Your task to perform on an android device: Play the last video I watched on Youtube Image 0: 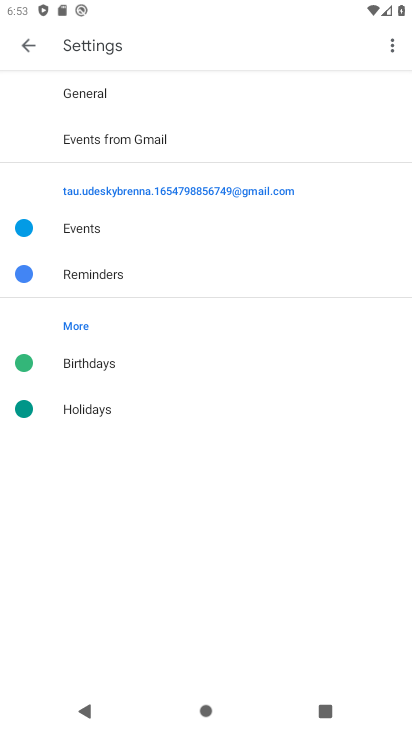
Step 0: press home button
Your task to perform on an android device: Play the last video I watched on Youtube Image 1: 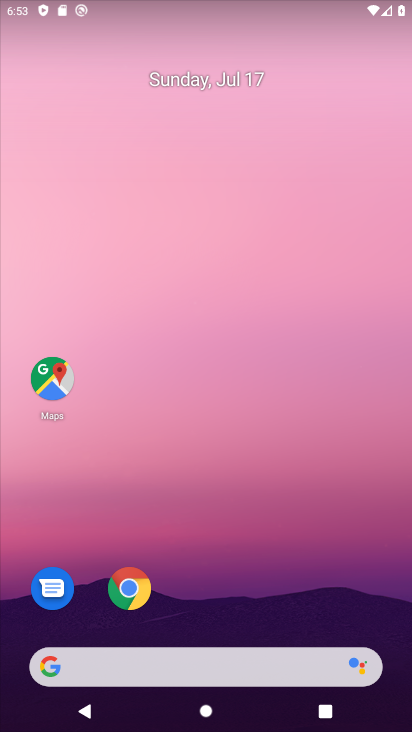
Step 1: drag from (289, 495) to (282, 57)
Your task to perform on an android device: Play the last video I watched on Youtube Image 2: 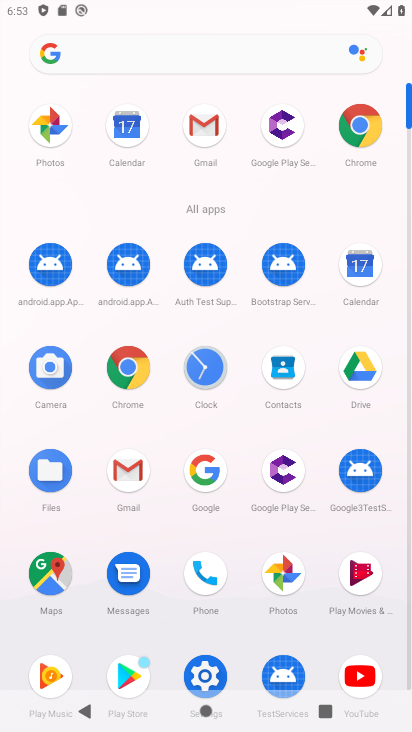
Step 2: click (361, 661)
Your task to perform on an android device: Play the last video I watched on Youtube Image 3: 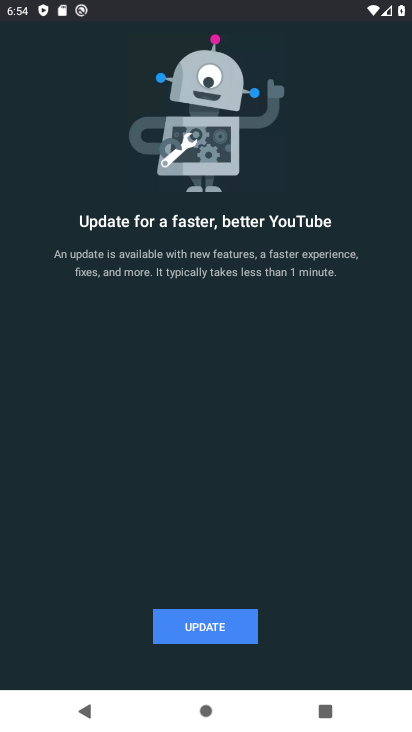
Step 3: click (209, 610)
Your task to perform on an android device: Play the last video I watched on Youtube Image 4: 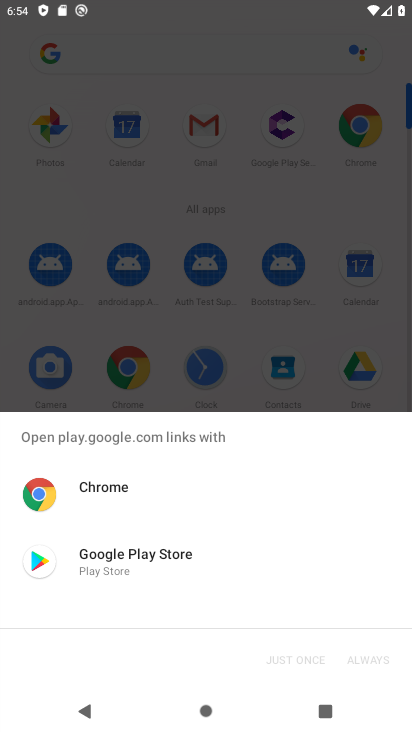
Step 4: click (151, 575)
Your task to perform on an android device: Play the last video I watched on Youtube Image 5: 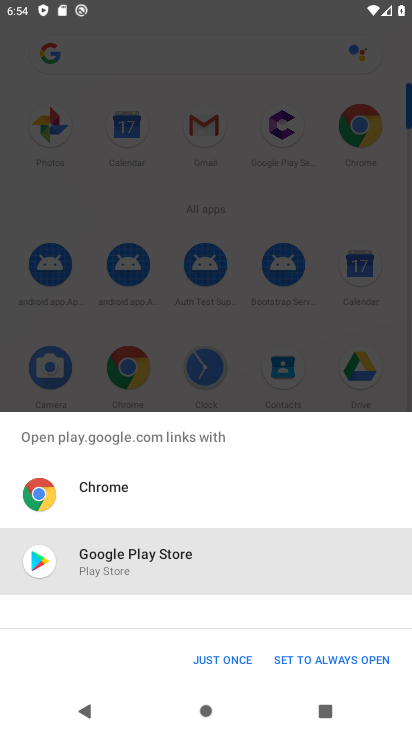
Step 5: click (220, 663)
Your task to perform on an android device: Play the last video I watched on Youtube Image 6: 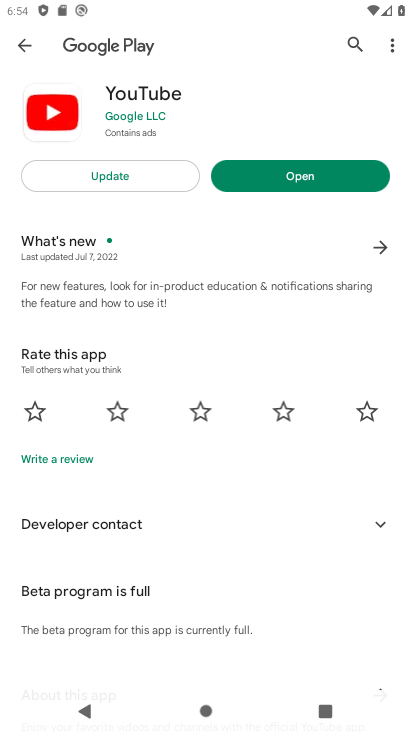
Step 6: click (102, 173)
Your task to perform on an android device: Play the last video I watched on Youtube Image 7: 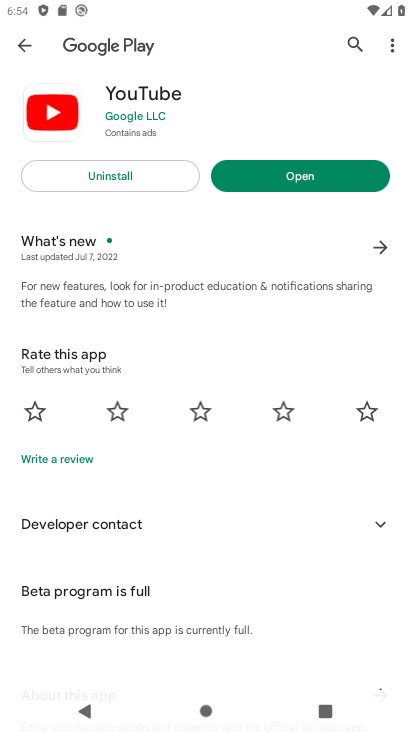
Step 7: click (283, 177)
Your task to perform on an android device: Play the last video I watched on Youtube Image 8: 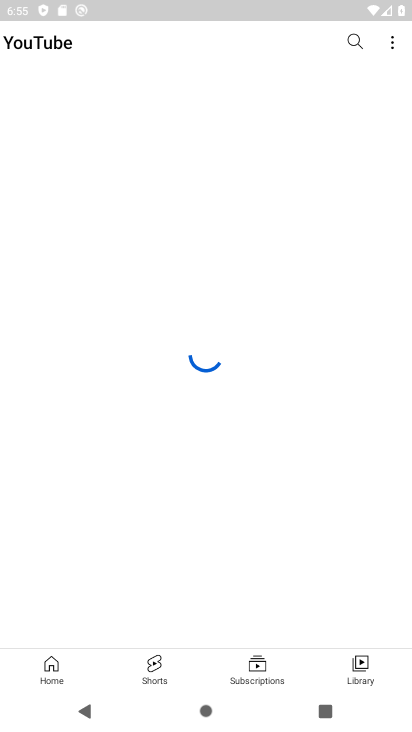
Step 8: click (365, 658)
Your task to perform on an android device: Play the last video I watched on Youtube Image 9: 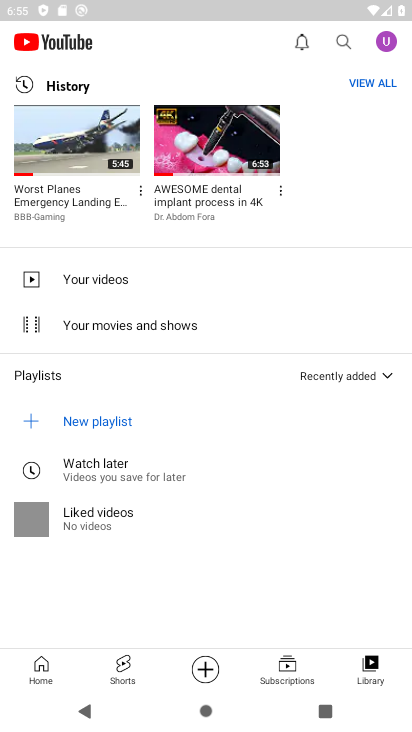
Step 9: click (44, 126)
Your task to perform on an android device: Play the last video I watched on Youtube Image 10: 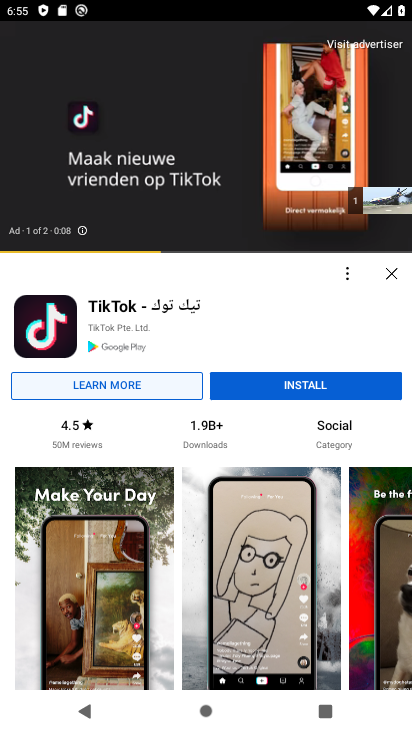
Step 10: click (374, 197)
Your task to perform on an android device: Play the last video I watched on Youtube Image 11: 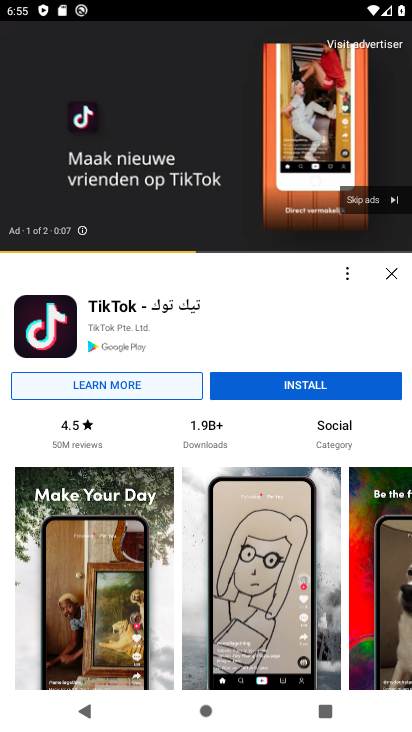
Step 11: click (374, 197)
Your task to perform on an android device: Play the last video I watched on Youtube Image 12: 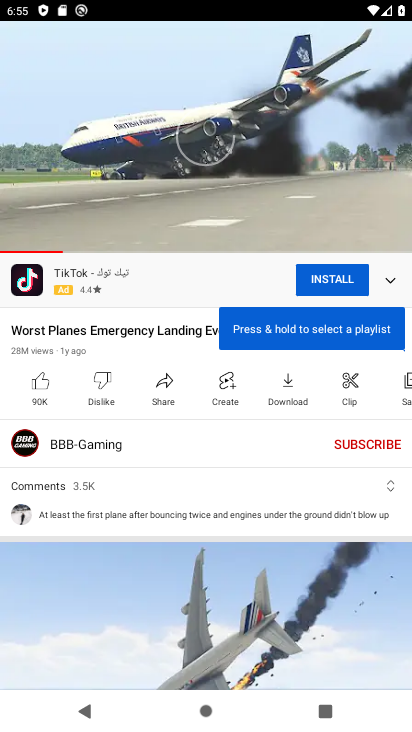
Step 12: click (154, 130)
Your task to perform on an android device: Play the last video I watched on Youtube Image 13: 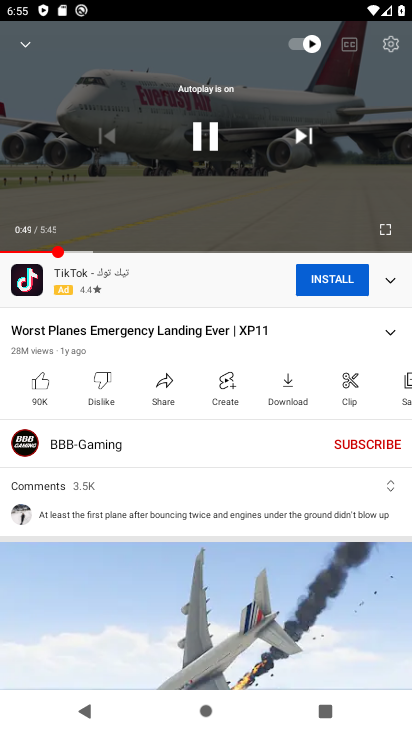
Step 13: click (193, 138)
Your task to perform on an android device: Play the last video I watched on Youtube Image 14: 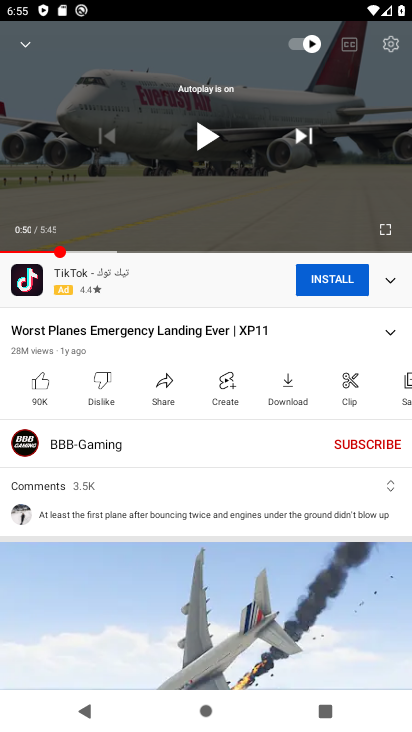
Step 14: task complete